Your task to perform on an android device: turn off notifications in google photos Image 0: 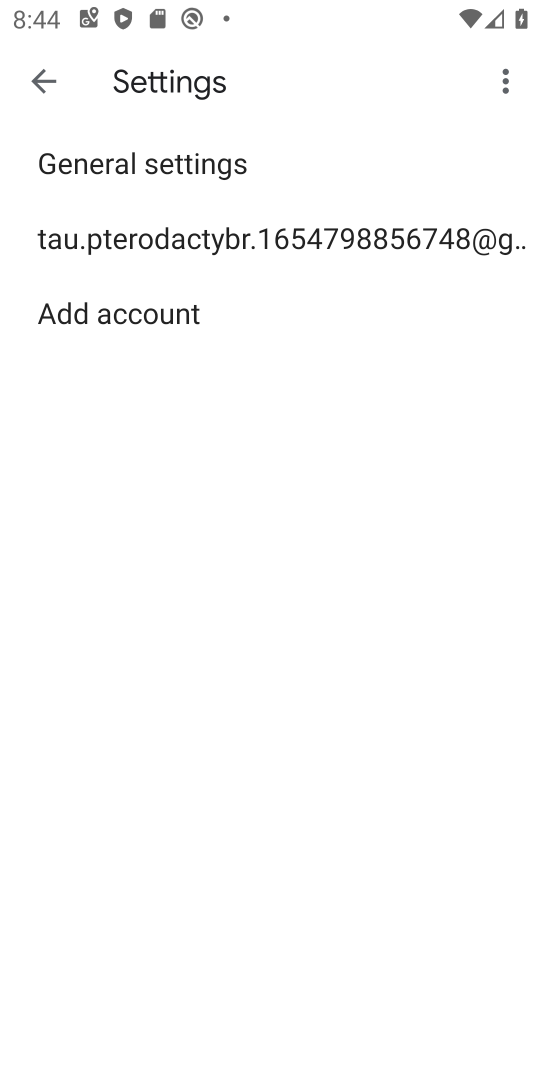
Step 0: press home button
Your task to perform on an android device: turn off notifications in google photos Image 1: 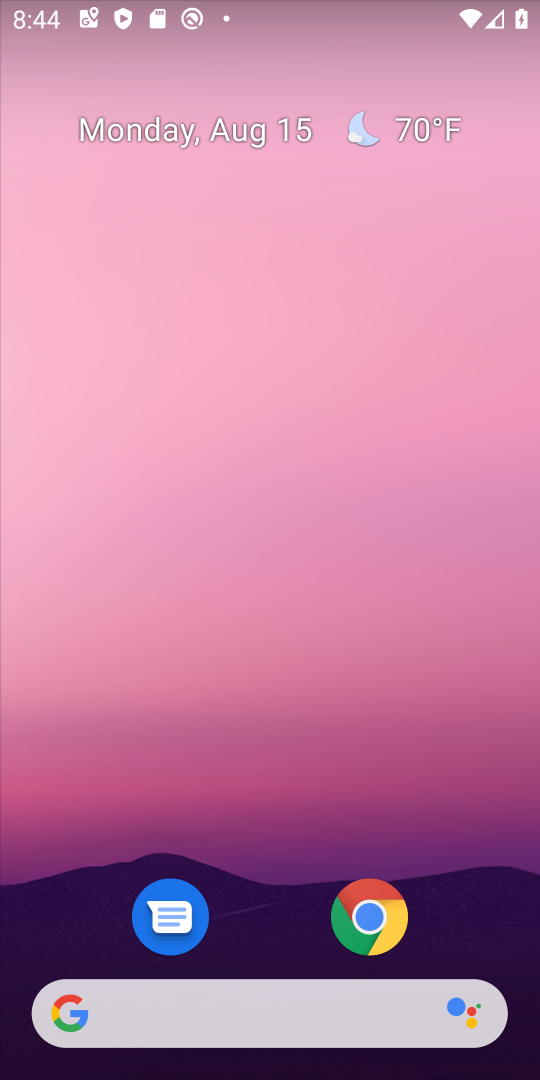
Step 1: drag from (288, 922) to (357, 66)
Your task to perform on an android device: turn off notifications in google photos Image 2: 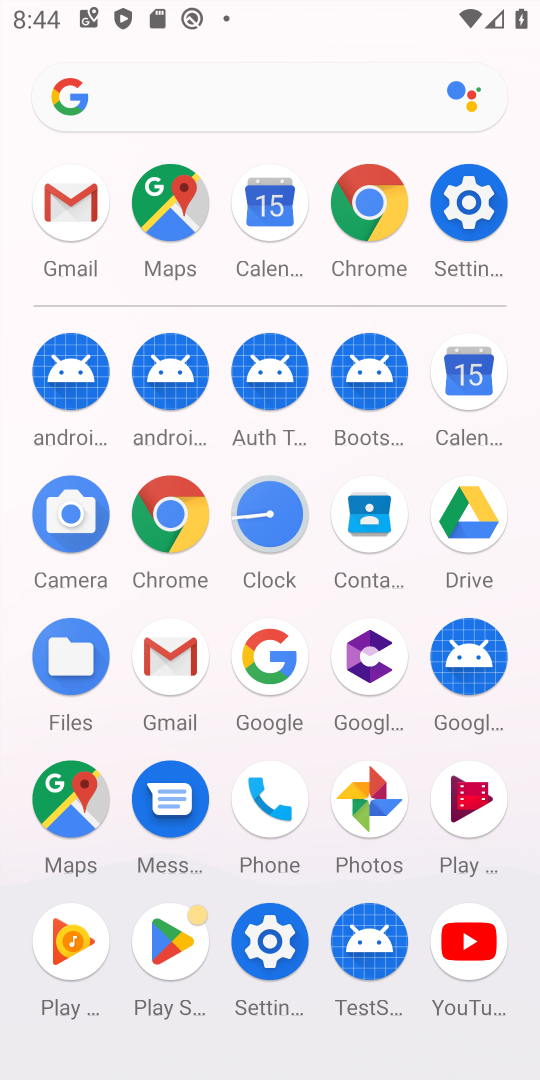
Step 2: click (370, 788)
Your task to perform on an android device: turn off notifications in google photos Image 3: 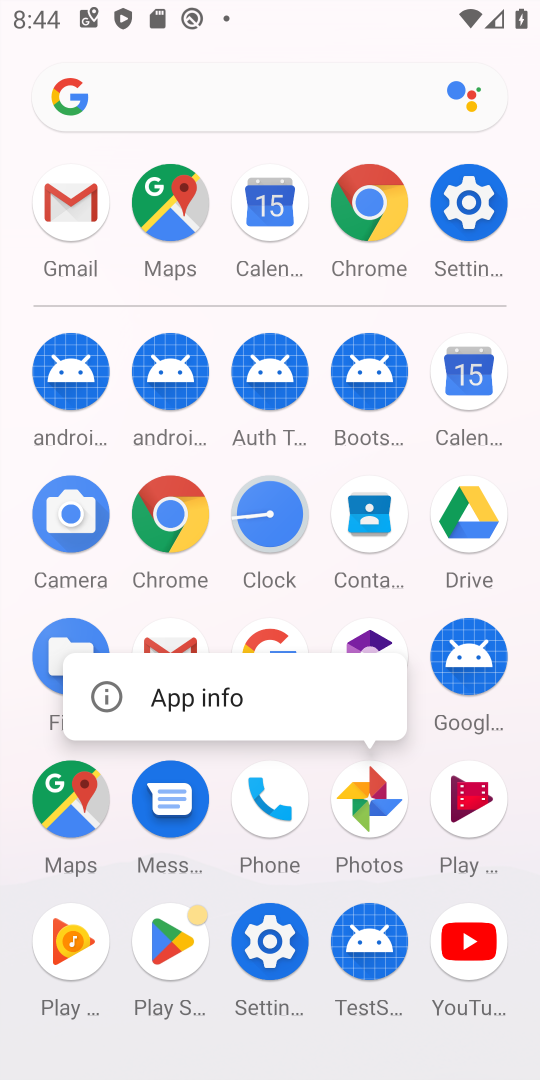
Step 3: click (372, 783)
Your task to perform on an android device: turn off notifications in google photos Image 4: 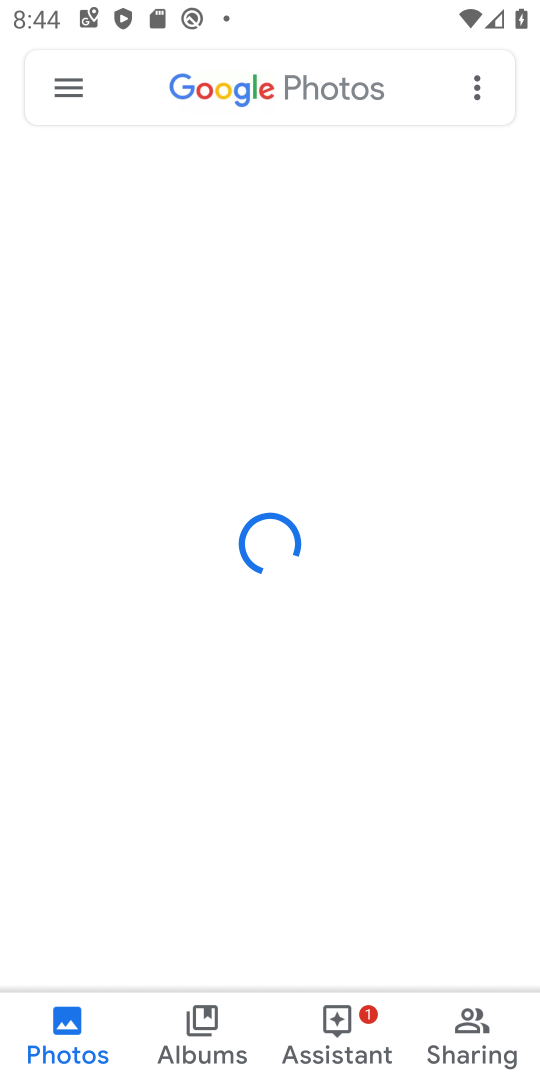
Step 4: click (74, 92)
Your task to perform on an android device: turn off notifications in google photos Image 5: 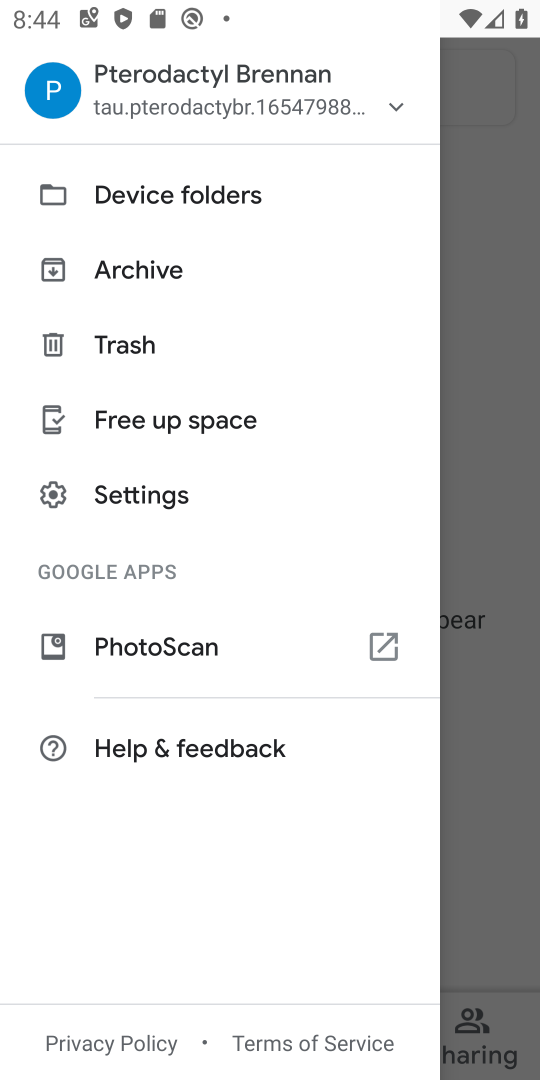
Step 5: click (113, 490)
Your task to perform on an android device: turn off notifications in google photos Image 6: 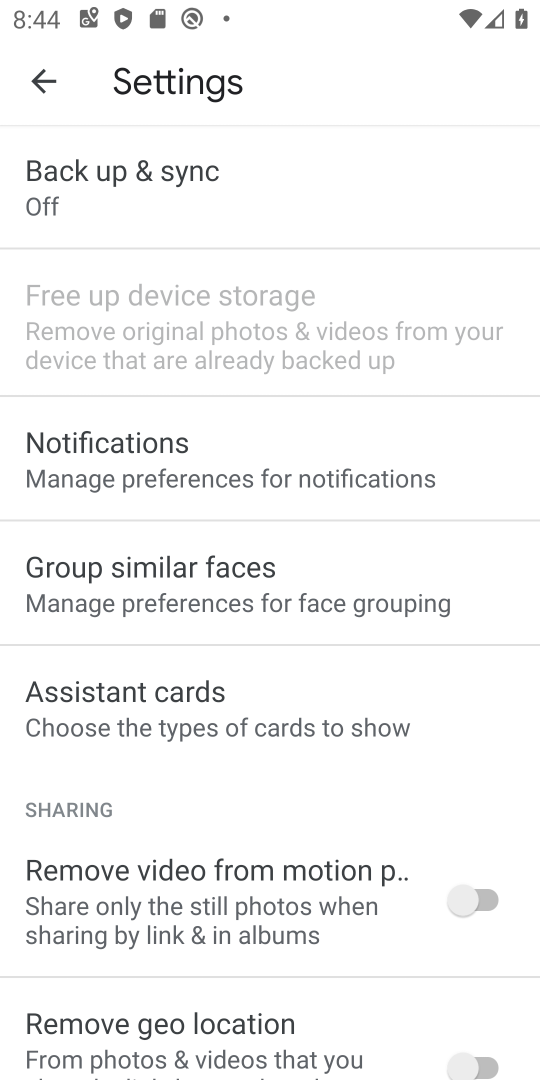
Step 6: click (149, 463)
Your task to perform on an android device: turn off notifications in google photos Image 7: 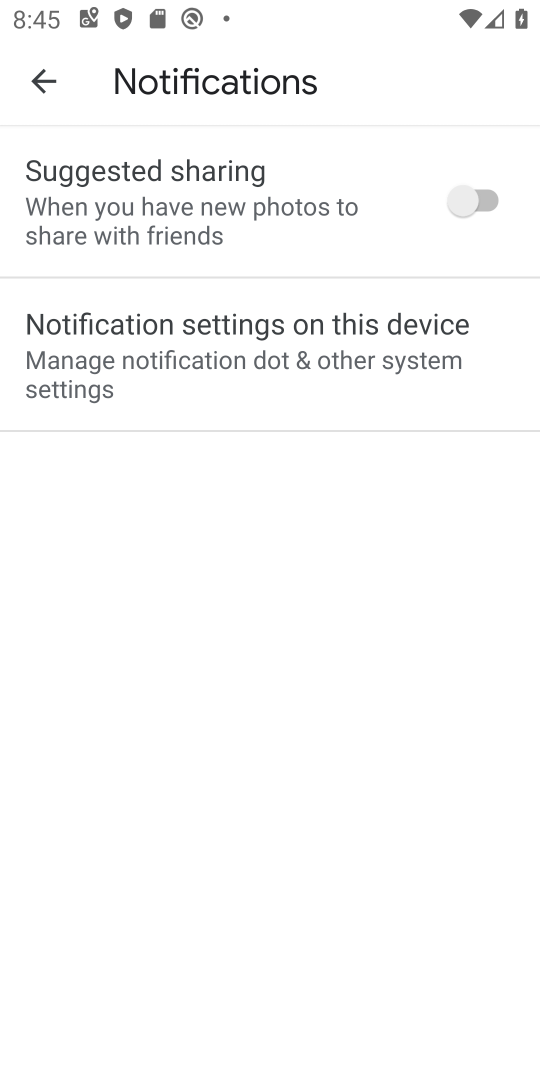
Step 7: click (275, 340)
Your task to perform on an android device: turn off notifications in google photos Image 8: 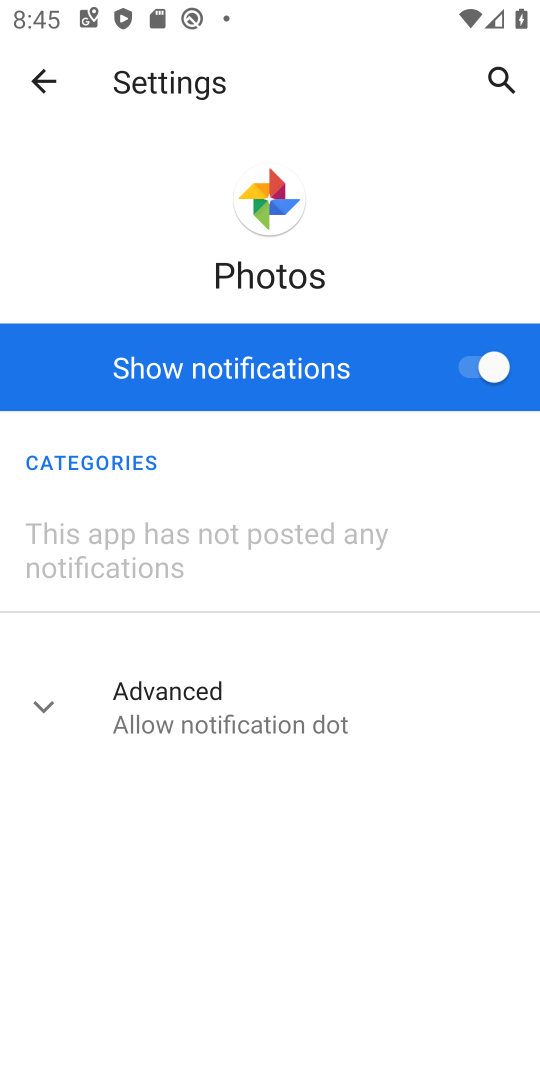
Step 8: click (487, 366)
Your task to perform on an android device: turn off notifications in google photos Image 9: 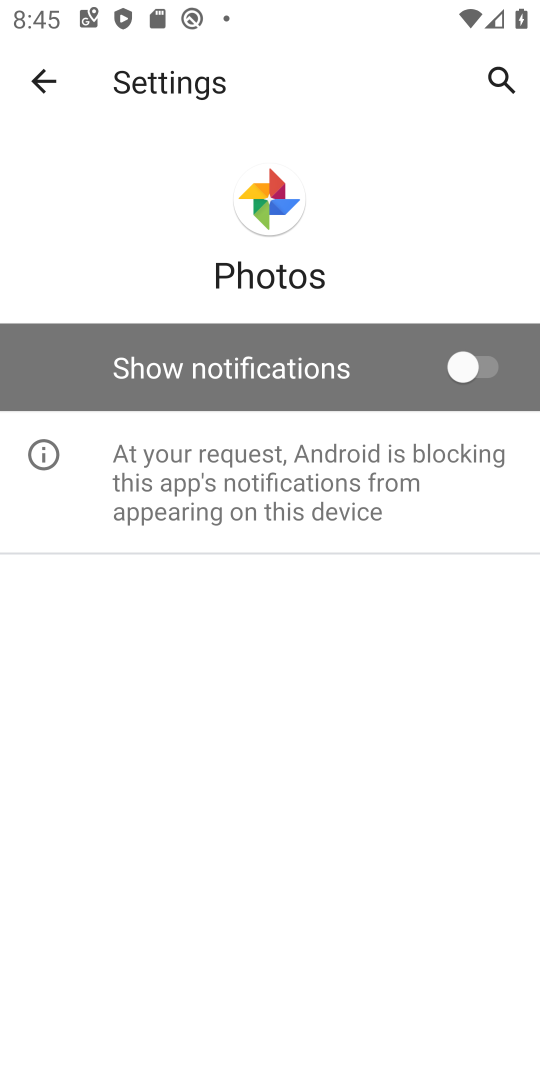
Step 9: task complete